Your task to perform on an android device: Is it going to rain tomorrow? Image 0: 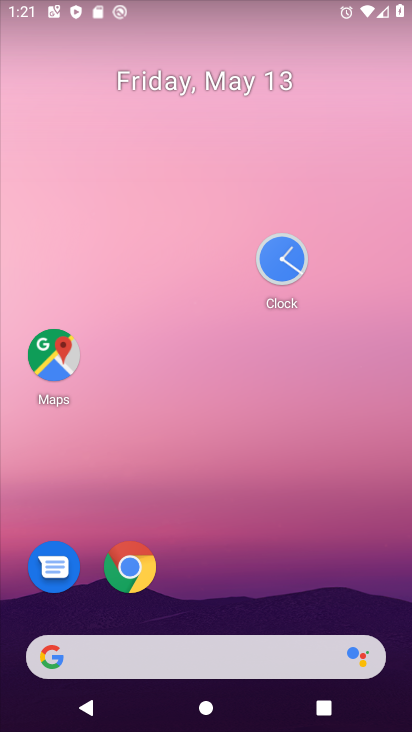
Step 0: drag from (251, 602) to (256, 215)
Your task to perform on an android device: Is it going to rain tomorrow? Image 1: 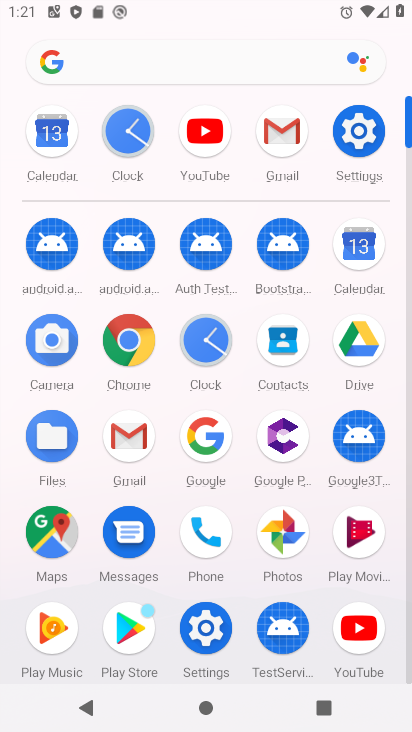
Step 1: click (168, 67)
Your task to perform on an android device: Is it going to rain tomorrow? Image 2: 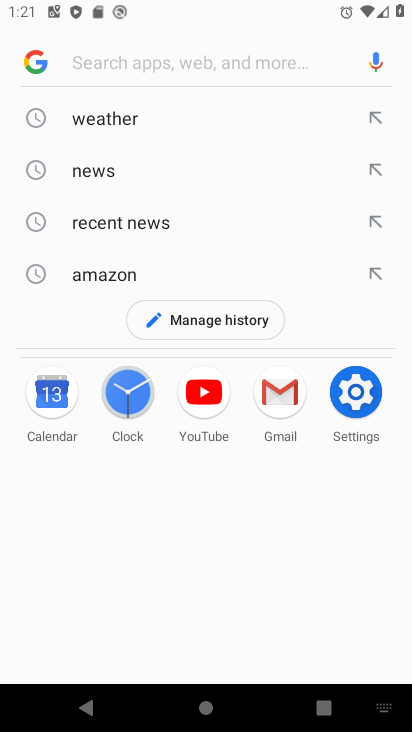
Step 2: click (160, 118)
Your task to perform on an android device: Is it going to rain tomorrow? Image 3: 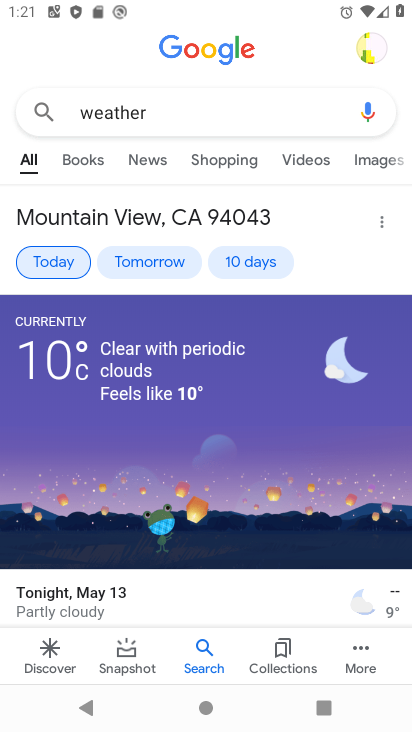
Step 3: click (129, 249)
Your task to perform on an android device: Is it going to rain tomorrow? Image 4: 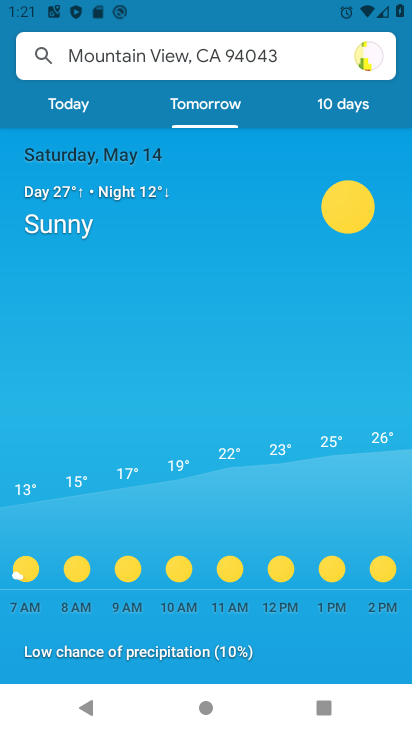
Step 4: task complete